Your task to perform on an android device: What is the recent news? Image 0: 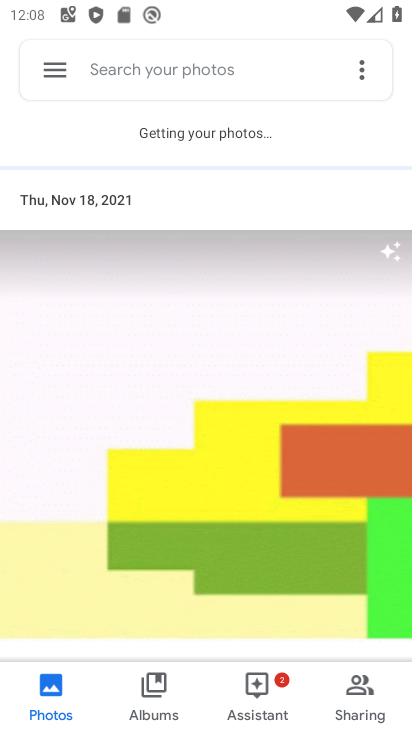
Step 0: press home button
Your task to perform on an android device: What is the recent news? Image 1: 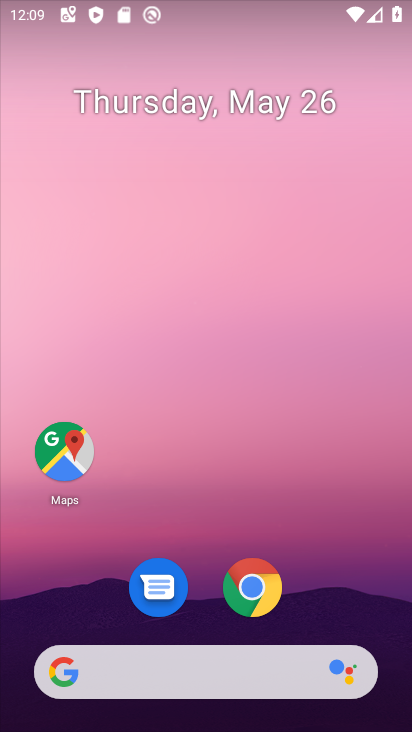
Step 1: task complete